Your task to perform on an android device: turn on bluetooth scan Image 0: 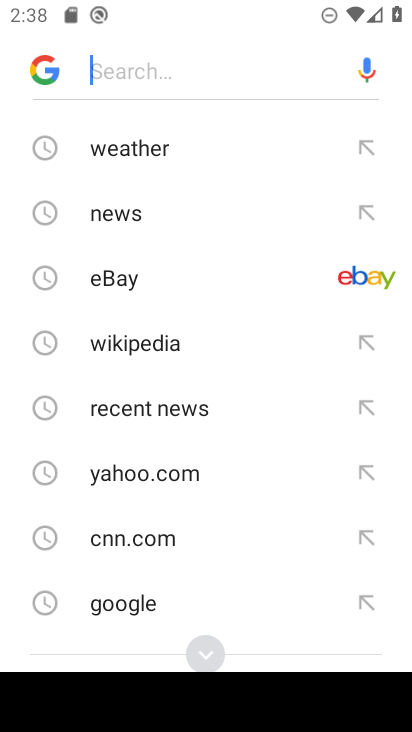
Step 0: press home button
Your task to perform on an android device: turn on bluetooth scan Image 1: 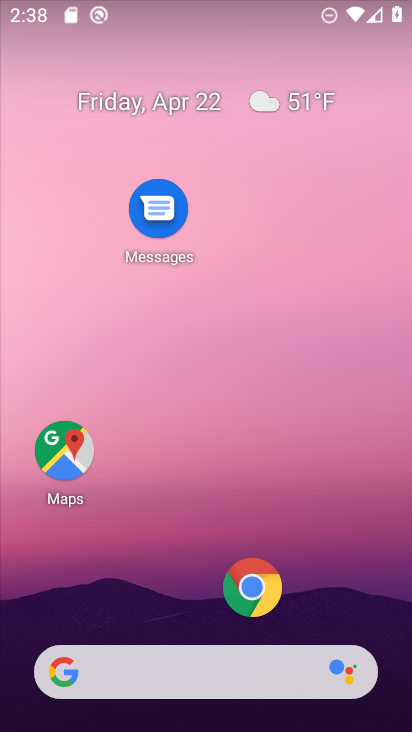
Step 1: drag from (206, 591) to (266, 183)
Your task to perform on an android device: turn on bluetooth scan Image 2: 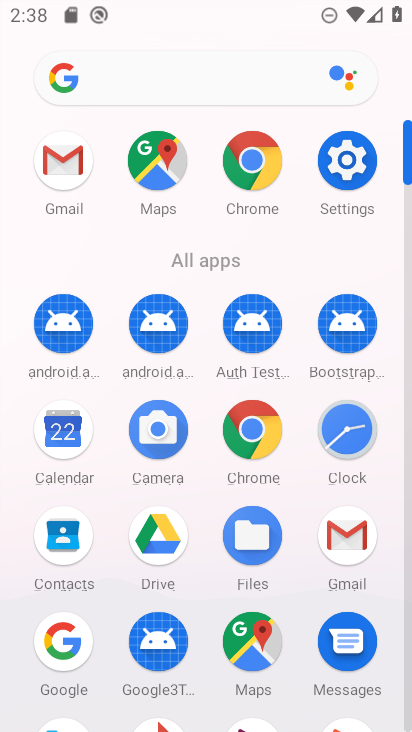
Step 2: click (328, 166)
Your task to perform on an android device: turn on bluetooth scan Image 3: 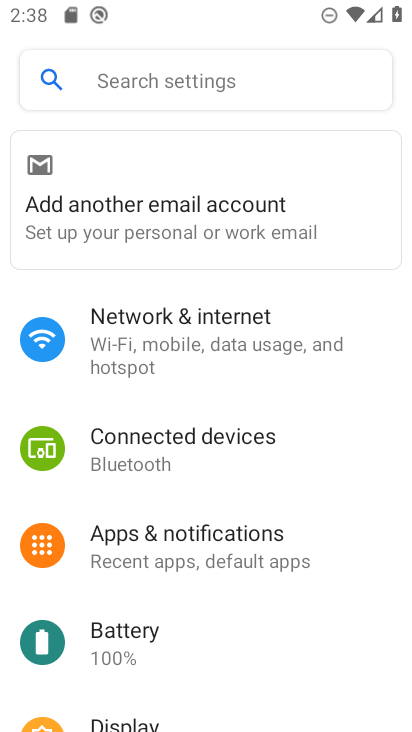
Step 3: drag from (207, 635) to (255, 311)
Your task to perform on an android device: turn on bluetooth scan Image 4: 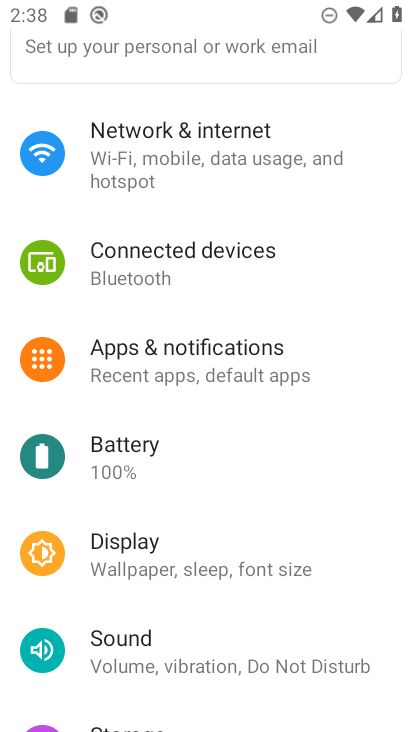
Step 4: drag from (250, 557) to (290, 294)
Your task to perform on an android device: turn on bluetooth scan Image 5: 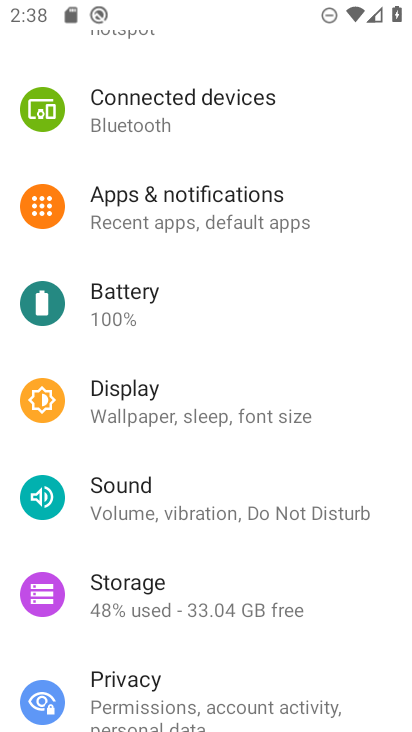
Step 5: drag from (262, 564) to (285, 288)
Your task to perform on an android device: turn on bluetooth scan Image 6: 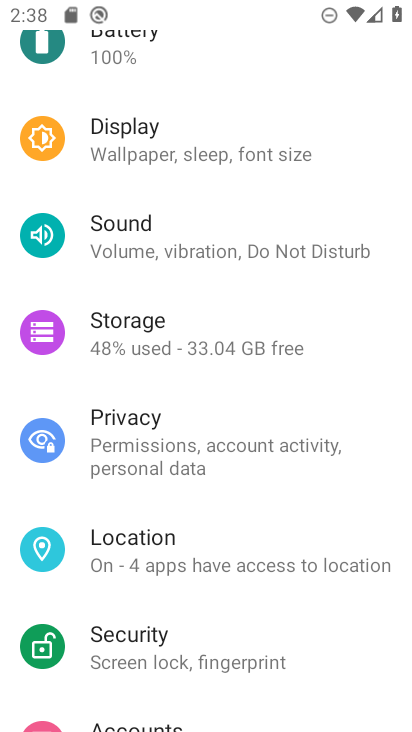
Step 6: drag from (266, 579) to (270, 399)
Your task to perform on an android device: turn on bluetooth scan Image 7: 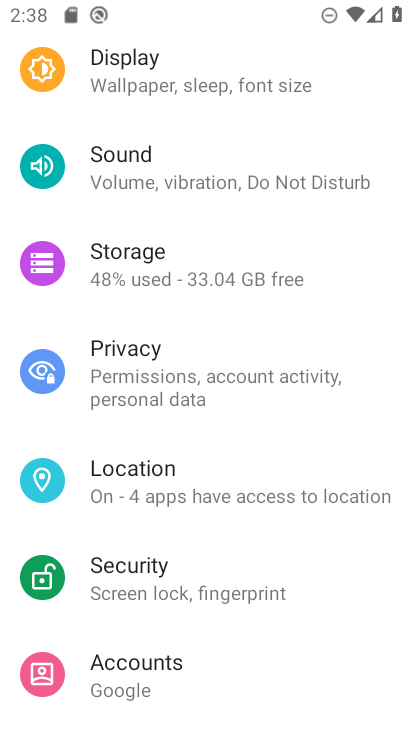
Step 7: click (213, 471)
Your task to perform on an android device: turn on bluetooth scan Image 8: 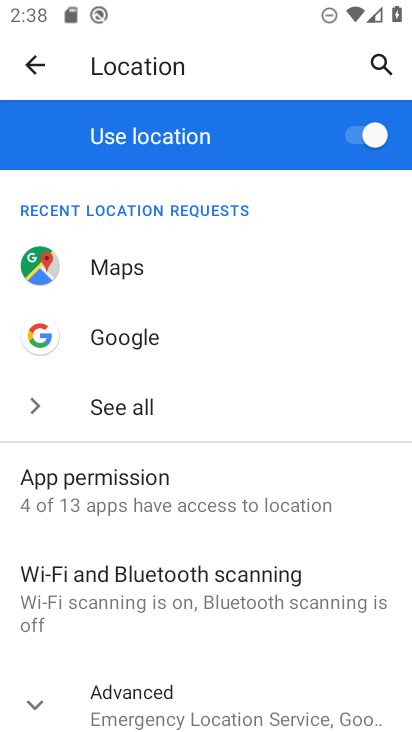
Step 8: click (245, 601)
Your task to perform on an android device: turn on bluetooth scan Image 9: 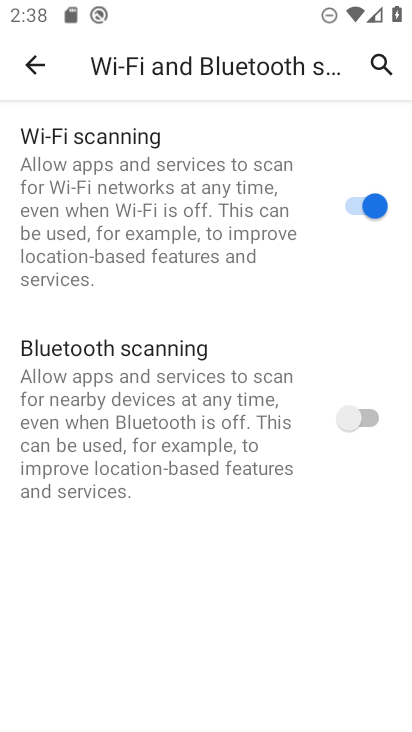
Step 9: click (360, 421)
Your task to perform on an android device: turn on bluetooth scan Image 10: 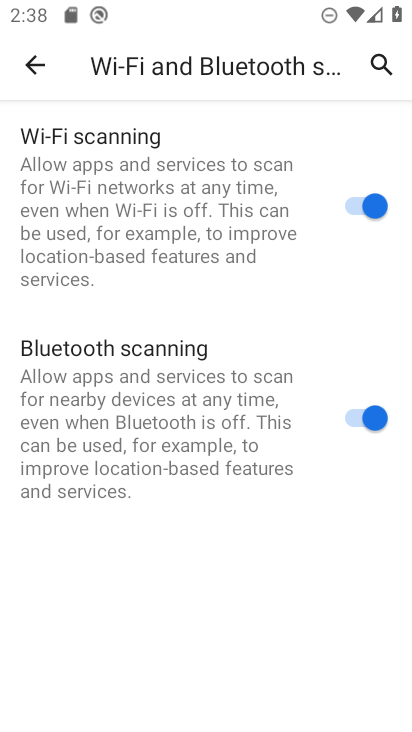
Step 10: task complete